Your task to perform on an android device: Go to calendar. Show me events next week Image 0: 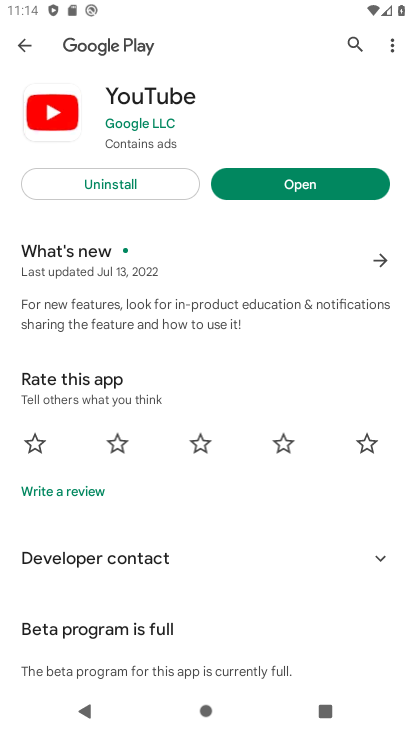
Step 0: press home button
Your task to perform on an android device: Go to calendar. Show me events next week Image 1: 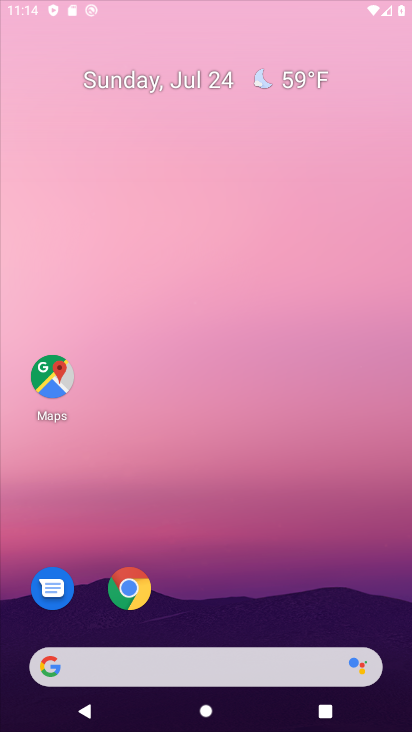
Step 1: drag from (358, 692) to (153, 19)
Your task to perform on an android device: Go to calendar. Show me events next week Image 2: 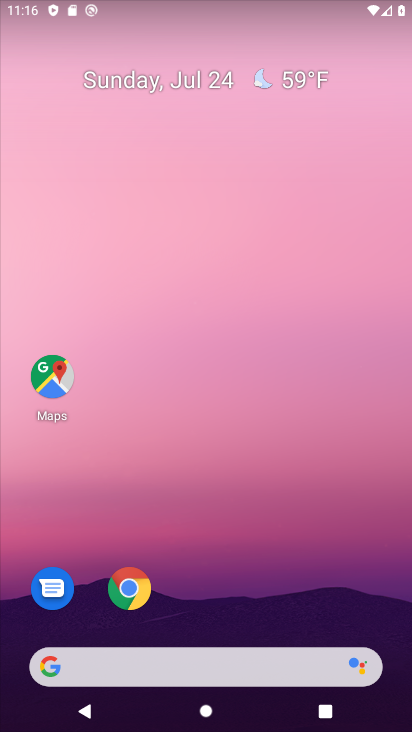
Step 2: drag from (358, 645) to (223, 13)
Your task to perform on an android device: Go to calendar. Show me events next week Image 3: 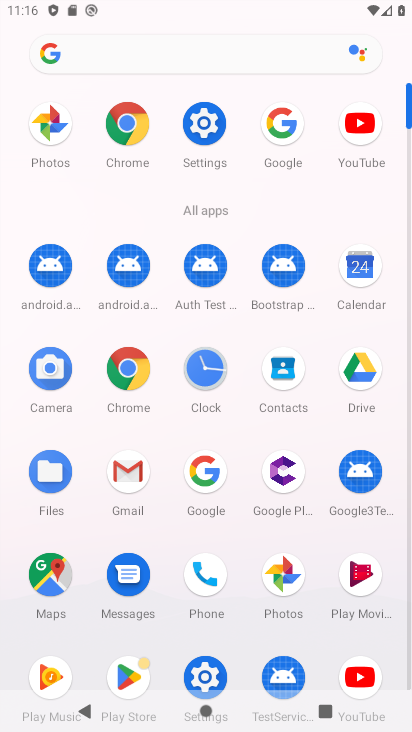
Step 3: click (362, 268)
Your task to perform on an android device: Go to calendar. Show me events next week Image 4: 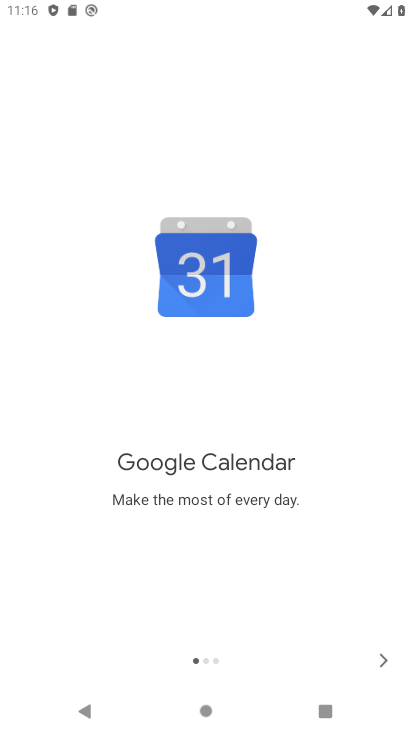
Step 4: click (375, 667)
Your task to perform on an android device: Go to calendar. Show me events next week Image 5: 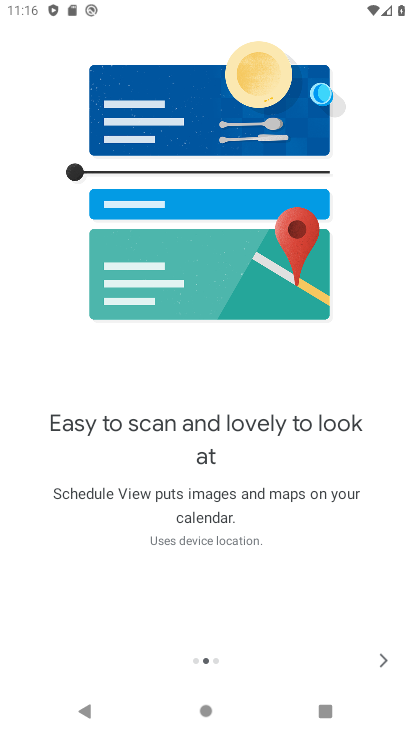
Step 5: click (377, 661)
Your task to perform on an android device: Go to calendar. Show me events next week Image 6: 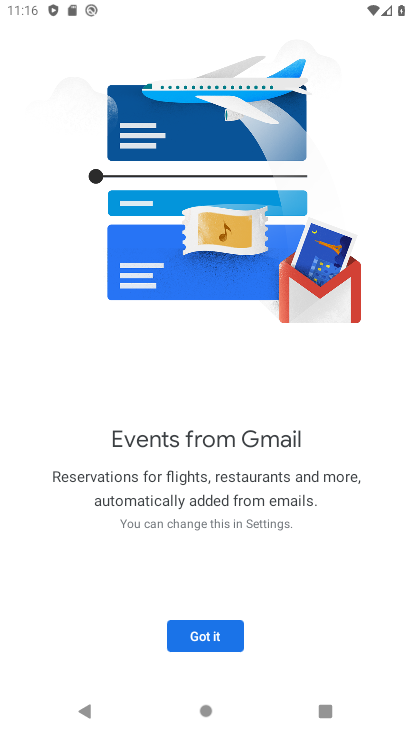
Step 6: click (188, 635)
Your task to perform on an android device: Go to calendar. Show me events next week Image 7: 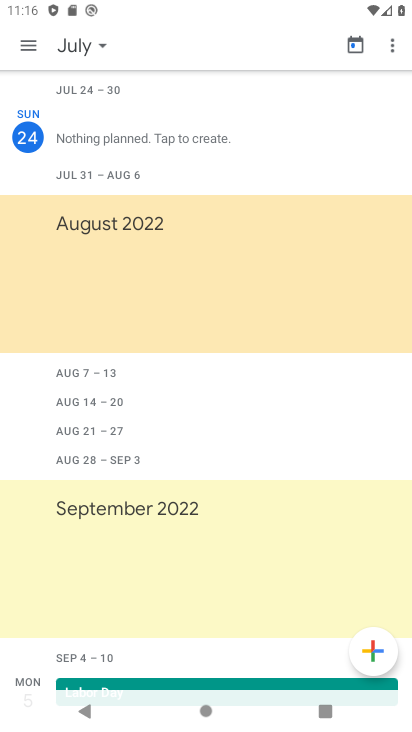
Step 7: task complete